Your task to perform on an android device: toggle improve location accuracy Image 0: 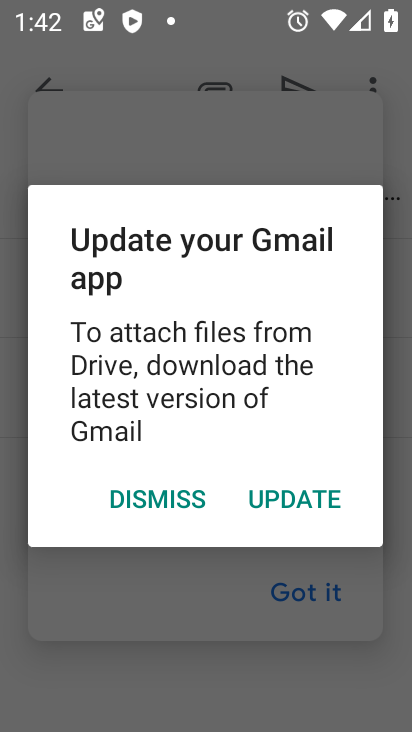
Step 0: press home button
Your task to perform on an android device: toggle improve location accuracy Image 1: 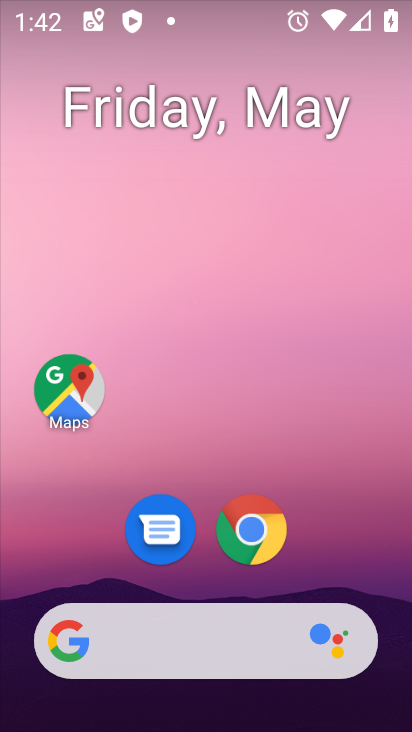
Step 1: drag from (397, 619) to (311, 360)
Your task to perform on an android device: toggle improve location accuracy Image 2: 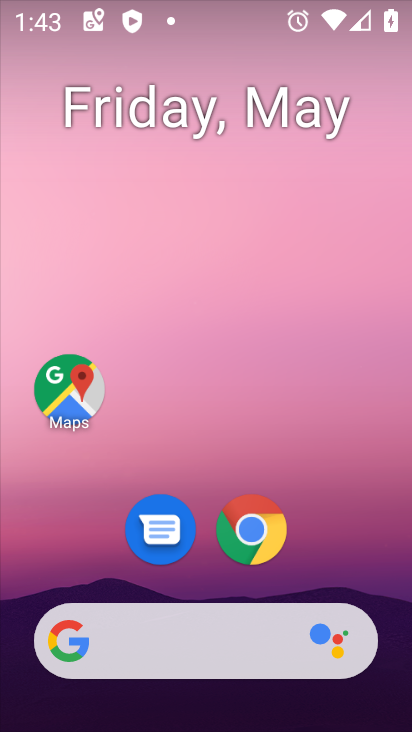
Step 2: drag from (400, 616) to (380, 248)
Your task to perform on an android device: toggle improve location accuracy Image 3: 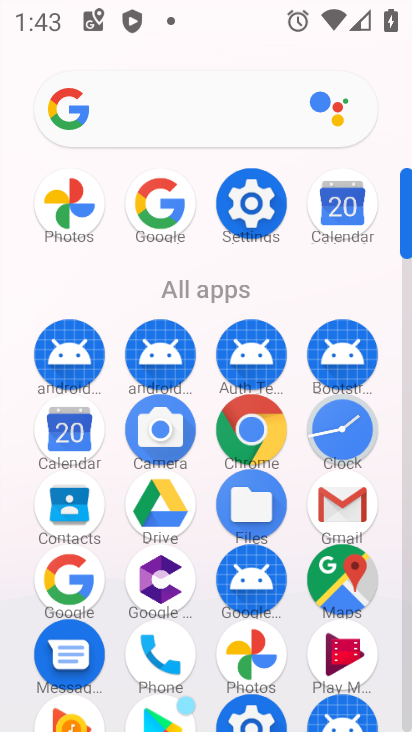
Step 3: click (267, 207)
Your task to perform on an android device: toggle improve location accuracy Image 4: 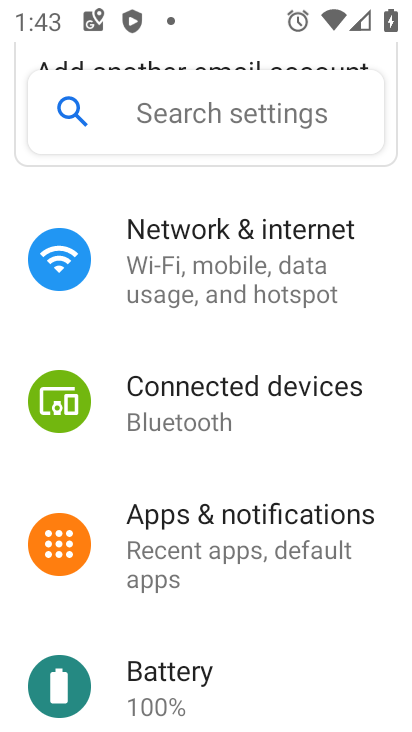
Step 4: drag from (295, 677) to (324, 290)
Your task to perform on an android device: toggle improve location accuracy Image 5: 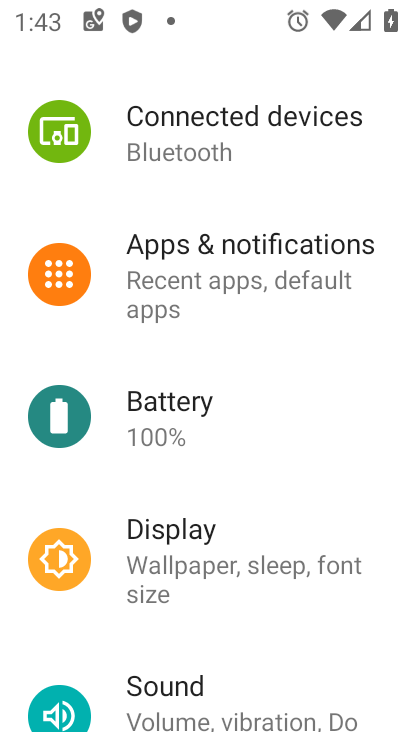
Step 5: drag from (267, 667) to (291, 278)
Your task to perform on an android device: toggle improve location accuracy Image 6: 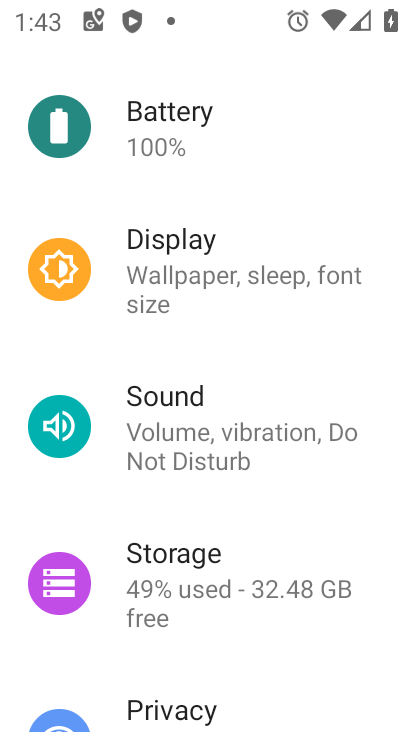
Step 6: drag from (275, 653) to (283, 370)
Your task to perform on an android device: toggle improve location accuracy Image 7: 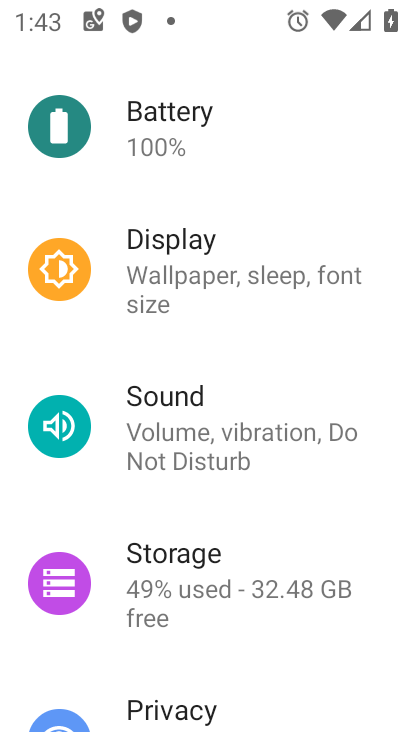
Step 7: drag from (289, 684) to (324, 313)
Your task to perform on an android device: toggle improve location accuracy Image 8: 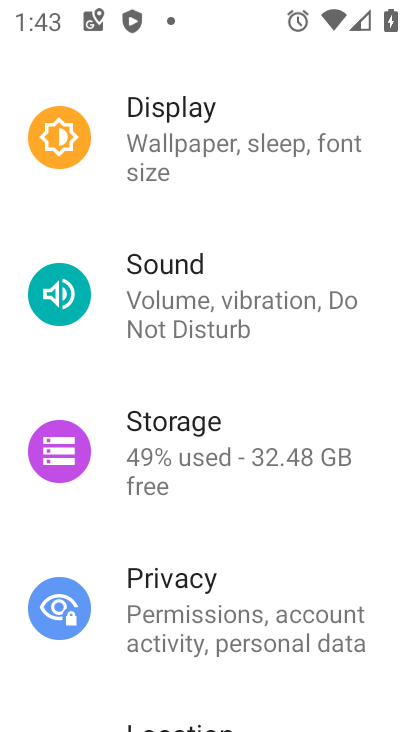
Step 8: drag from (298, 687) to (333, 329)
Your task to perform on an android device: toggle improve location accuracy Image 9: 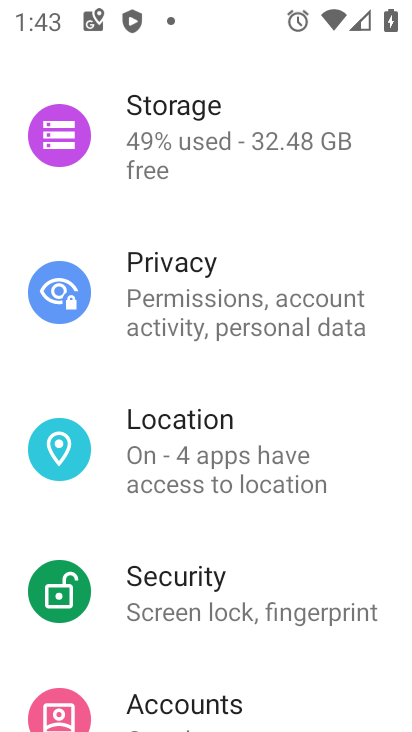
Step 9: click (171, 575)
Your task to perform on an android device: toggle improve location accuracy Image 10: 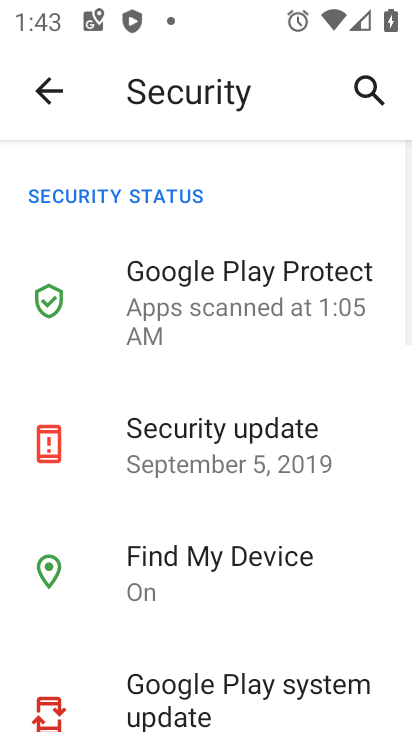
Step 10: drag from (327, 608) to (334, 245)
Your task to perform on an android device: toggle improve location accuracy Image 11: 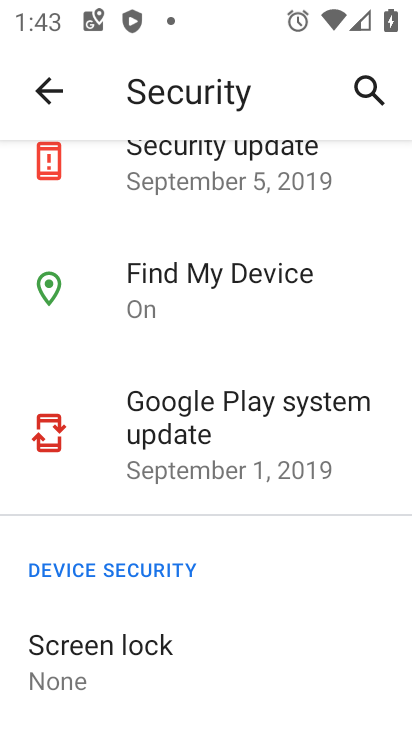
Step 11: drag from (262, 669) to (257, 364)
Your task to perform on an android device: toggle improve location accuracy Image 12: 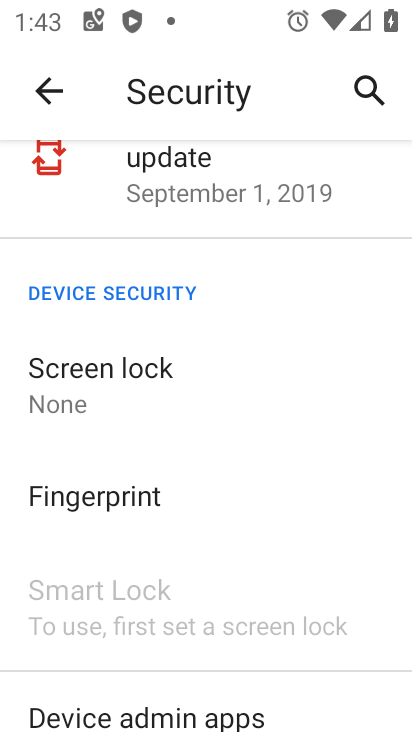
Step 12: drag from (264, 554) to (264, 338)
Your task to perform on an android device: toggle improve location accuracy Image 13: 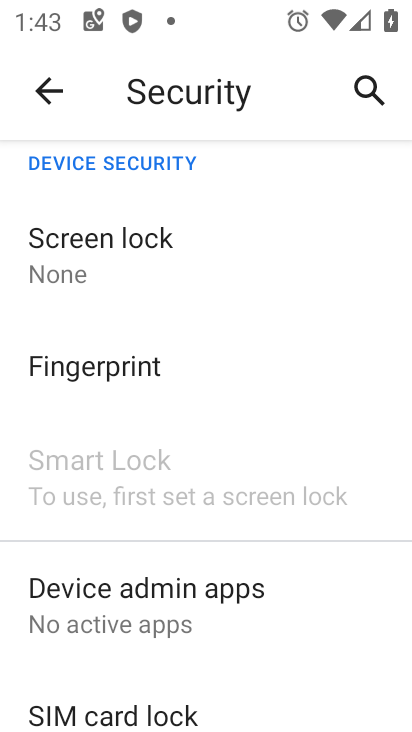
Step 13: drag from (241, 289) to (237, 582)
Your task to perform on an android device: toggle improve location accuracy Image 14: 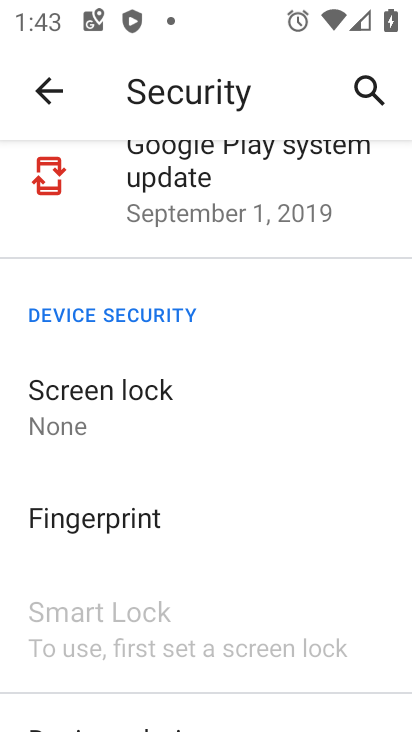
Step 14: click (258, 596)
Your task to perform on an android device: toggle improve location accuracy Image 15: 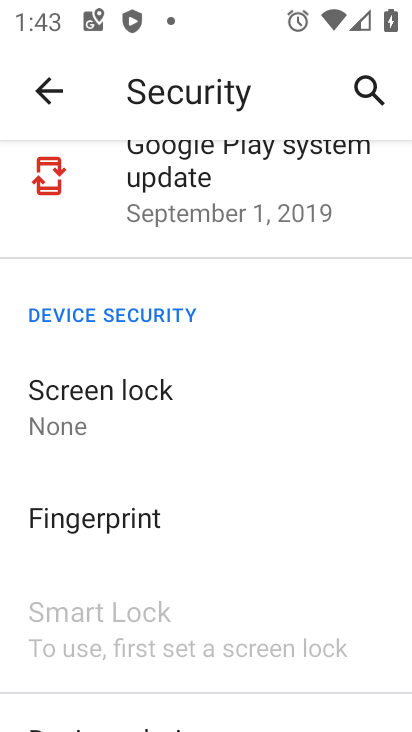
Step 15: drag from (262, 325) to (282, 582)
Your task to perform on an android device: toggle improve location accuracy Image 16: 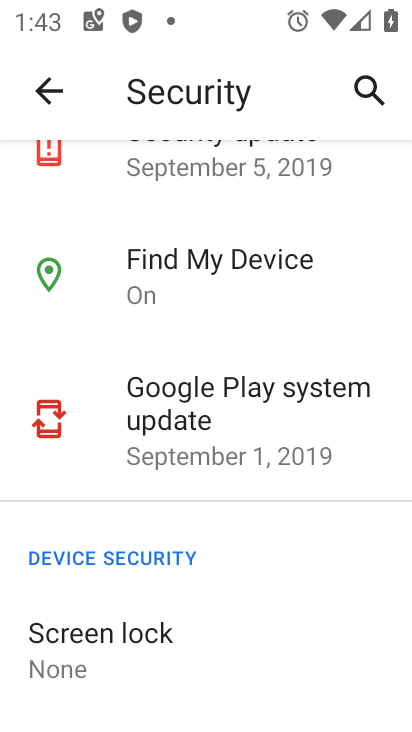
Step 16: press back button
Your task to perform on an android device: toggle improve location accuracy Image 17: 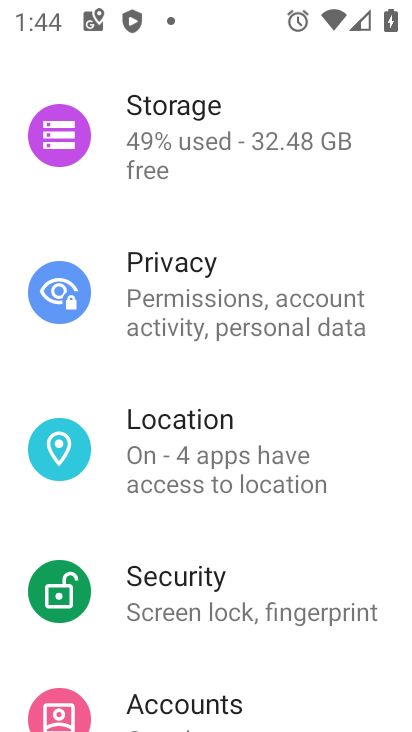
Step 17: click (166, 403)
Your task to perform on an android device: toggle improve location accuracy Image 18: 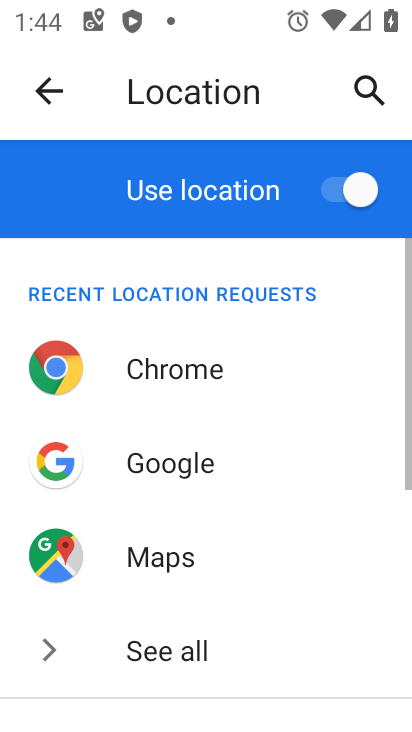
Step 18: drag from (303, 667) to (283, 252)
Your task to perform on an android device: toggle improve location accuracy Image 19: 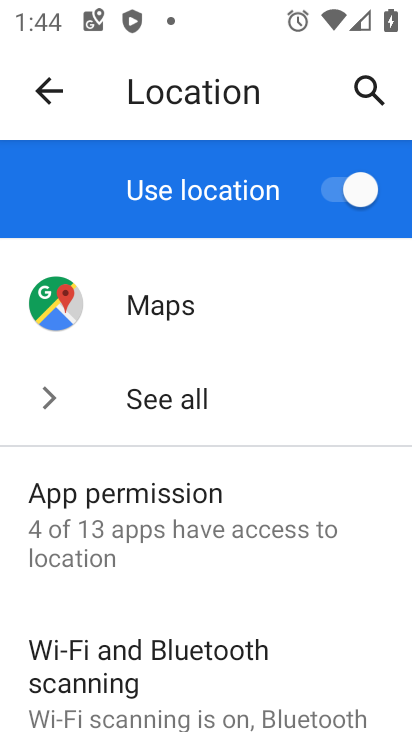
Step 19: drag from (286, 678) to (277, 258)
Your task to perform on an android device: toggle improve location accuracy Image 20: 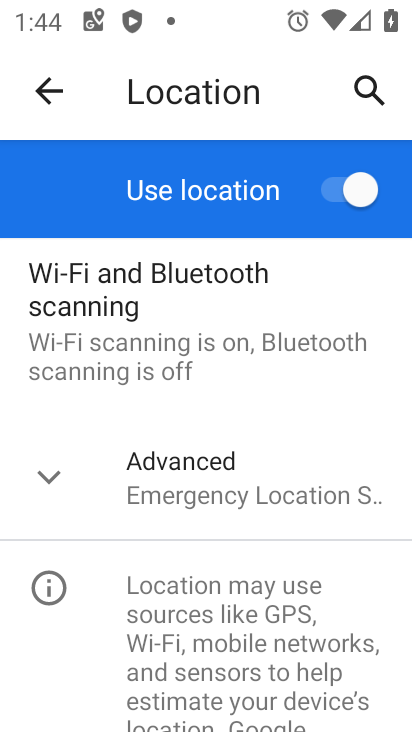
Step 20: click (50, 665)
Your task to perform on an android device: toggle improve location accuracy Image 21: 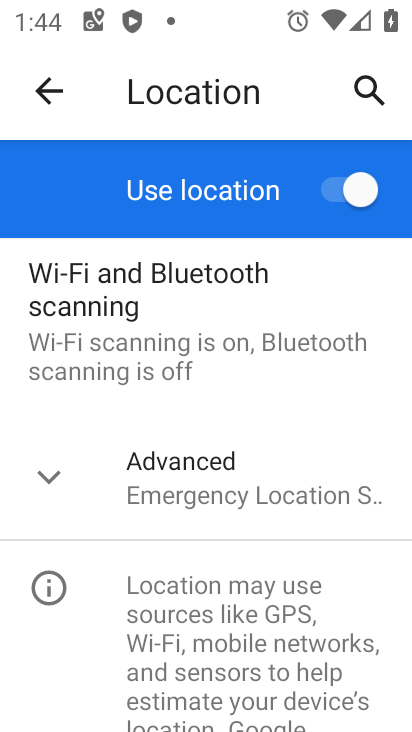
Step 21: drag from (349, 695) to (322, 313)
Your task to perform on an android device: toggle improve location accuracy Image 22: 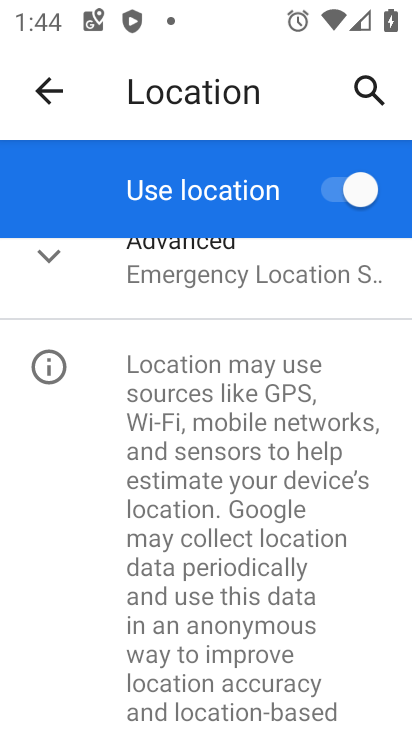
Step 22: click (50, 260)
Your task to perform on an android device: toggle improve location accuracy Image 23: 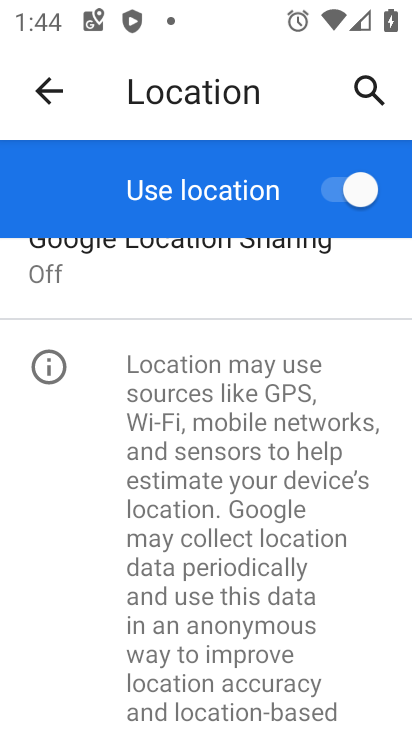
Step 23: drag from (125, 628) to (153, 380)
Your task to perform on an android device: toggle improve location accuracy Image 24: 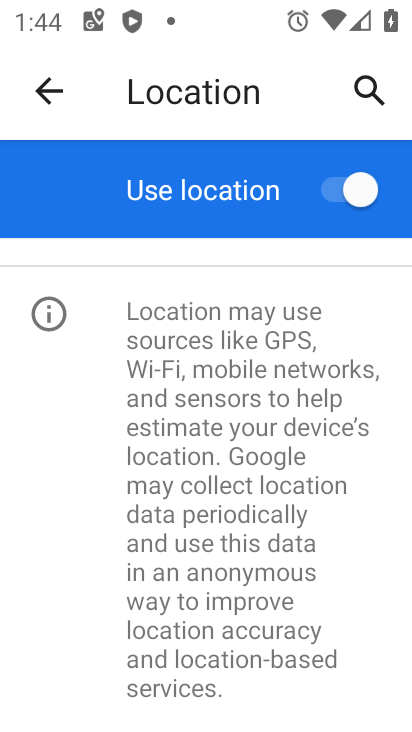
Step 24: drag from (146, 304) to (157, 627)
Your task to perform on an android device: toggle improve location accuracy Image 25: 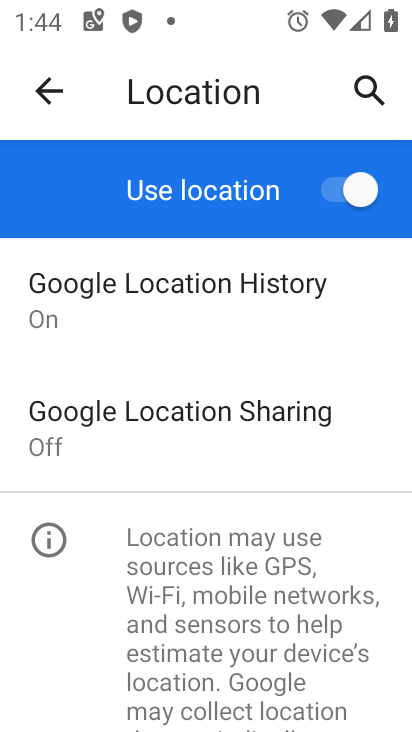
Step 25: drag from (171, 321) to (172, 372)
Your task to perform on an android device: toggle improve location accuracy Image 26: 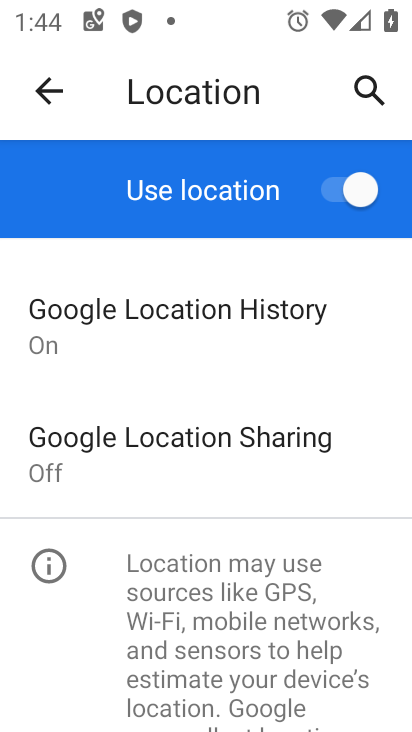
Step 26: drag from (179, 305) to (179, 486)
Your task to perform on an android device: toggle improve location accuracy Image 27: 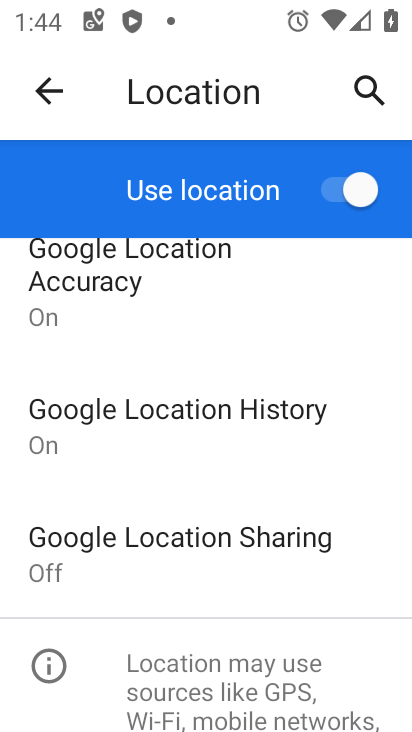
Step 27: click (94, 262)
Your task to perform on an android device: toggle improve location accuracy Image 28: 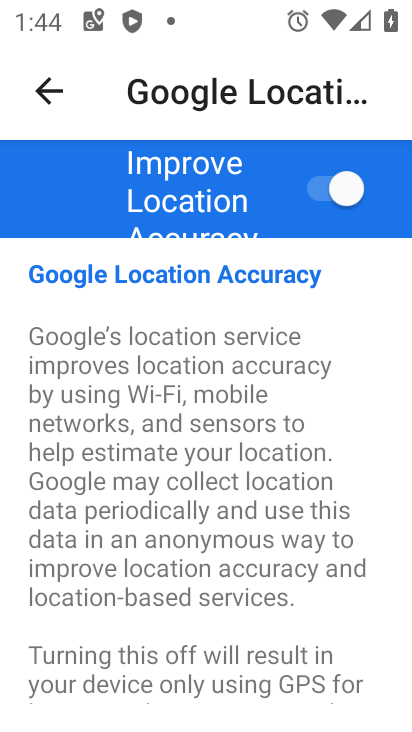
Step 28: click (317, 187)
Your task to perform on an android device: toggle improve location accuracy Image 29: 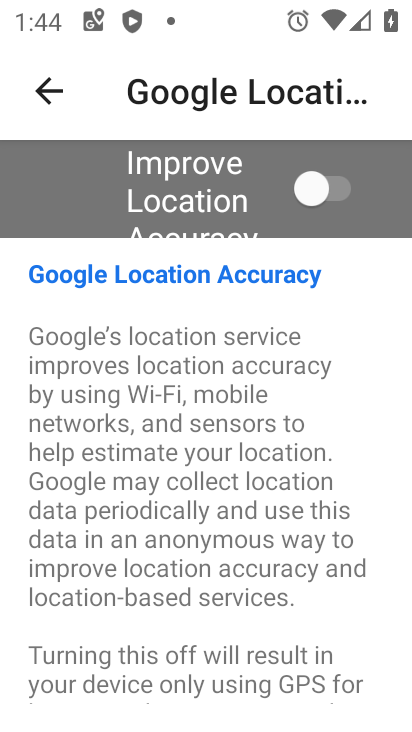
Step 29: task complete